Your task to perform on an android device: toggle translation in the chrome app Image 0: 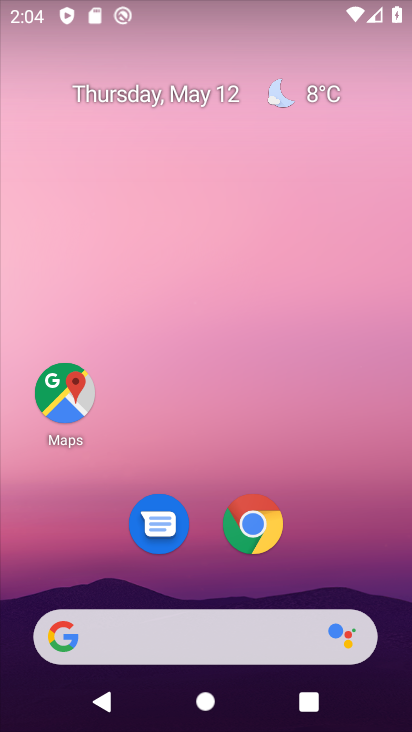
Step 0: click (269, 524)
Your task to perform on an android device: toggle translation in the chrome app Image 1: 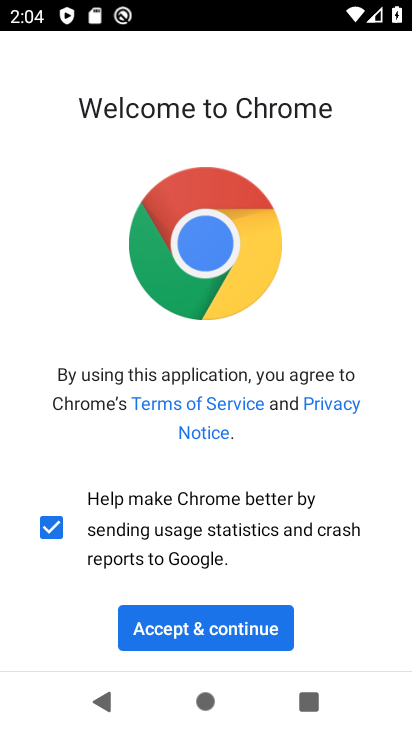
Step 1: click (261, 622)
Your task to perform on an android device: toggle translation in the chrome app Image 2: 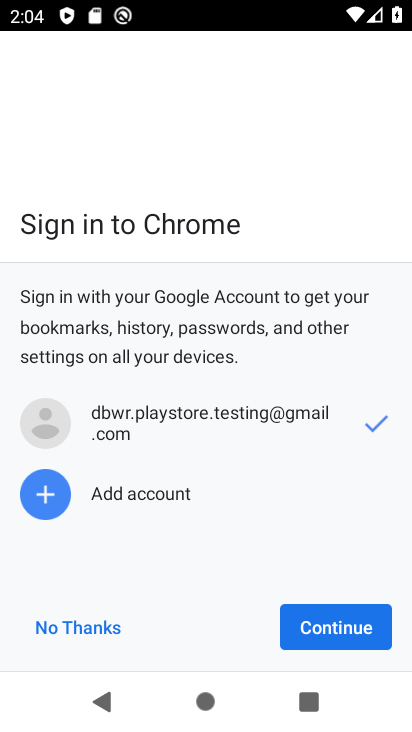
Step 2: click (309, 627)
Your task to perform on an android device: toggle translation in the chrome app Image 3: 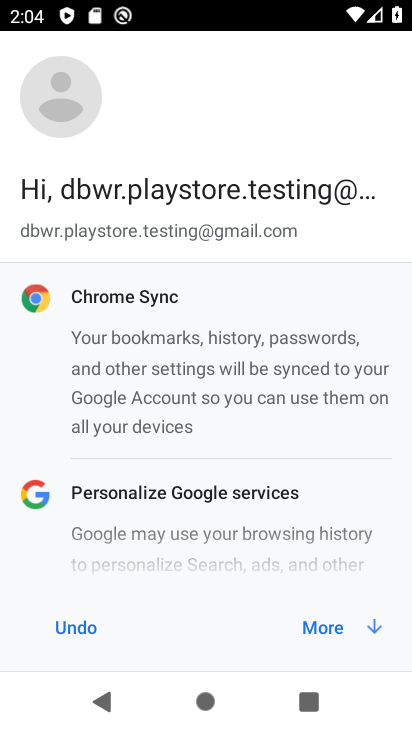
Step 3: click (320, 627)
Your task to perform on an android device: toggle translation in the chrome app Image 4: 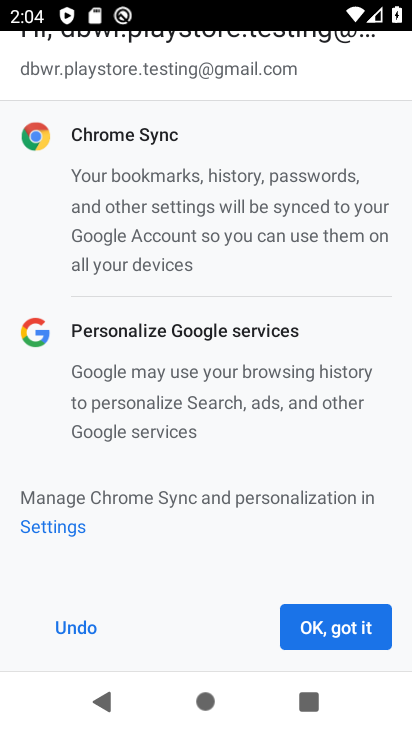
Step 4: click (321, 630)
Your task to perform on an android device: toggle translation in the chrome app Image 5: 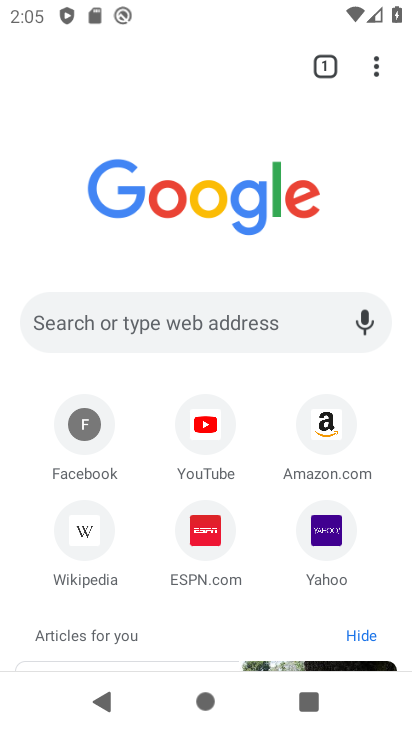
Step 5: click (375, 67)
Your task to perform on an android device: toggle translation in the chrome app Image 6: 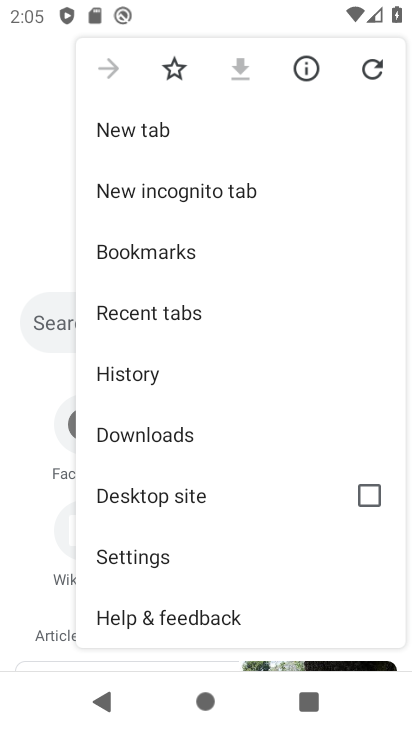
Step 6: click (186, 556)
Your task to perform on an android device: toggle translation in the chrome app Image 7: 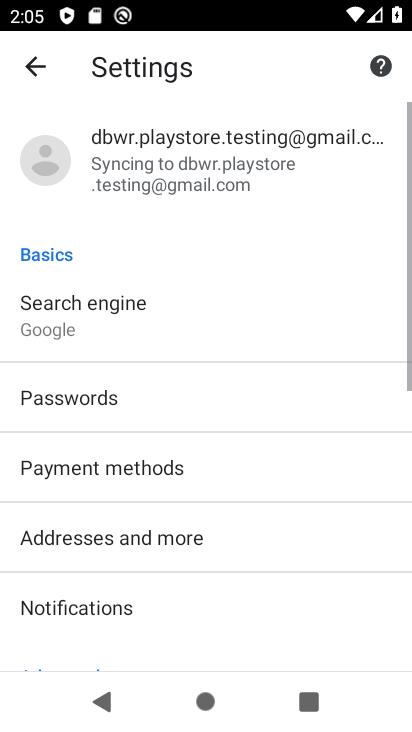
Step 7: drag from (249, 485) to (274, 166)
Your task to perform on an android device: toggle translation in the chrome app Image 8: 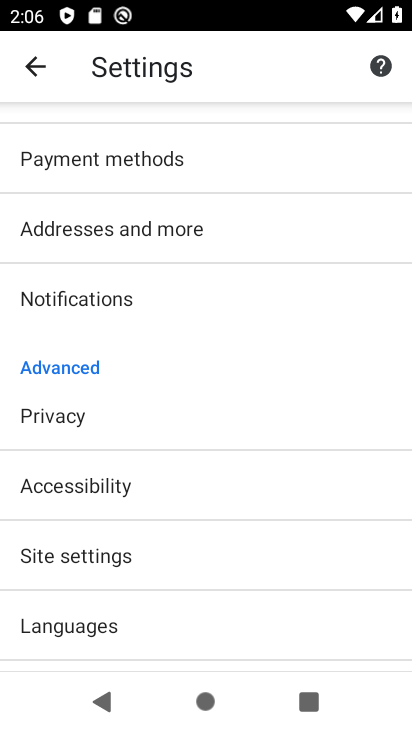
Step 8: click (214, 602)
Your task to perform on an android device: toggle translation in the chrome app Image 9: 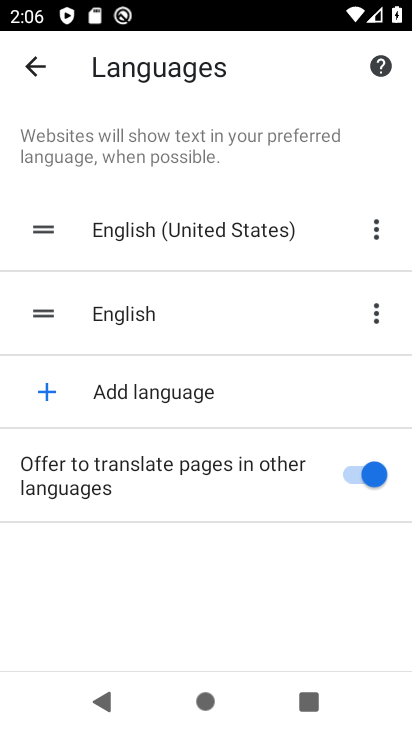
Step 9: click (348, 470)
Your task to perform on an android device: toggle translation in the chrome app Image 10: 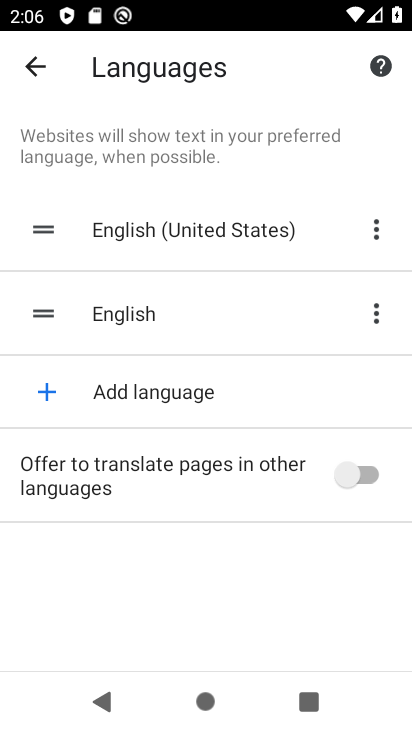
Step 10: task complete